Your task to perform on an android device: all mails in gmail Image 0: 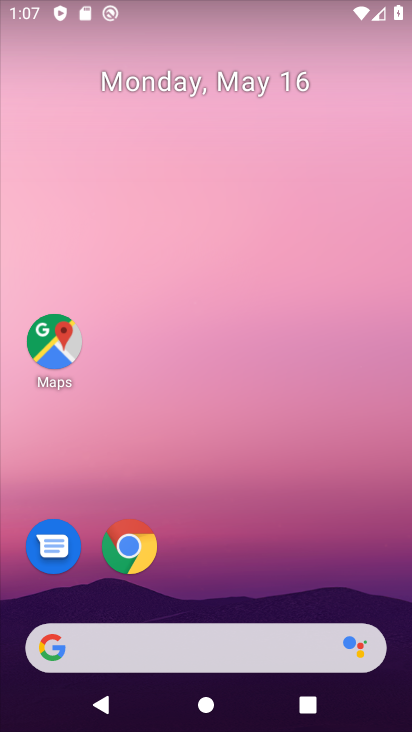
Step 0: drag from (181, 559) to (218, 183)
Your task to perform on an android device: all mails in gmail Image 1: 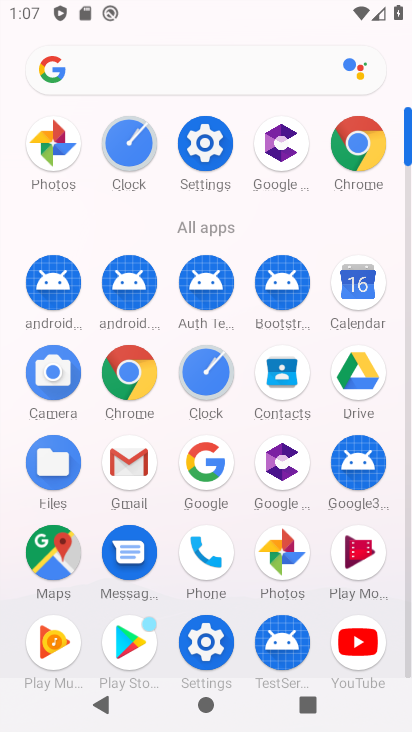
Step 1: click (130, 473)
Your task to perform on an android device: all mails in gmail Image 2: 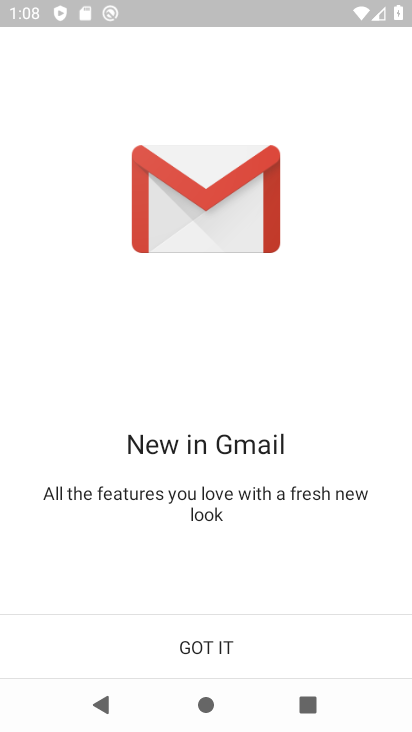
Step 2: click (217, 657)
Your task to perform on an android device: all mails in gmail Image 3: 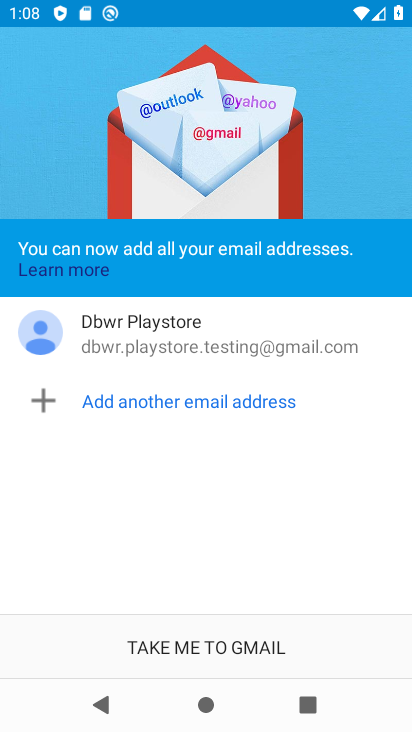
Step 3: click (206, 635)
Your task to perform on an android device: all mails in gmail Image 4: 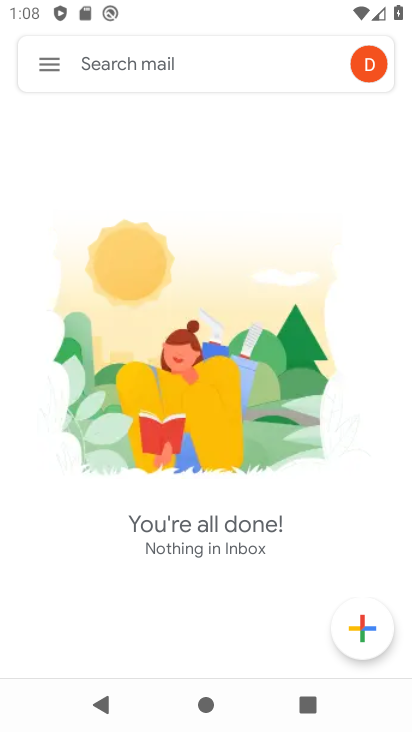
Step 4: click (42, 64)
Your task to perform on an android device: all mails in gmail Image 5: 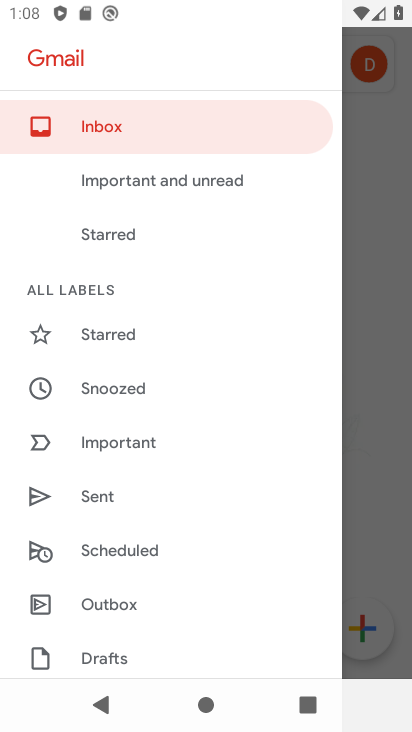
Step 5: drag from (132, 601) to (192, 107)
Your task to perform on an android device: all mails in gmail Image 6: 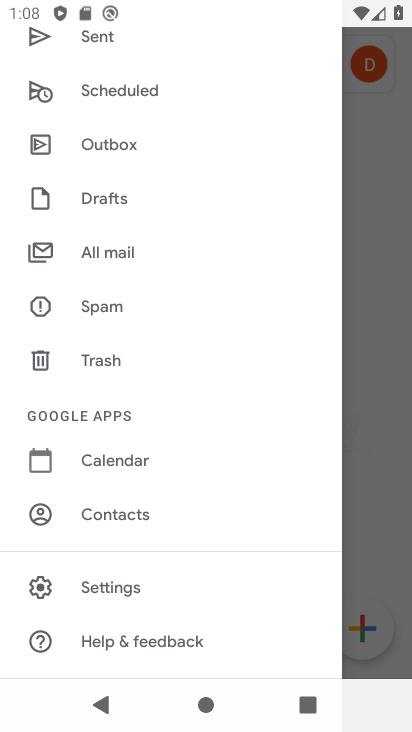
Step 6: drag from (107, 560) to (154, 200)
Your task to perform on an android device: all mails in gmail Image 7: 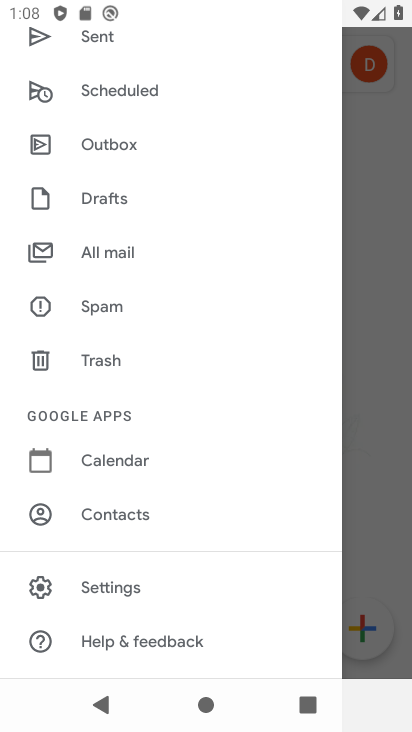
Step 7: click (106, 238)
Your task to perform on an android device: all mails in gmail Image 8: 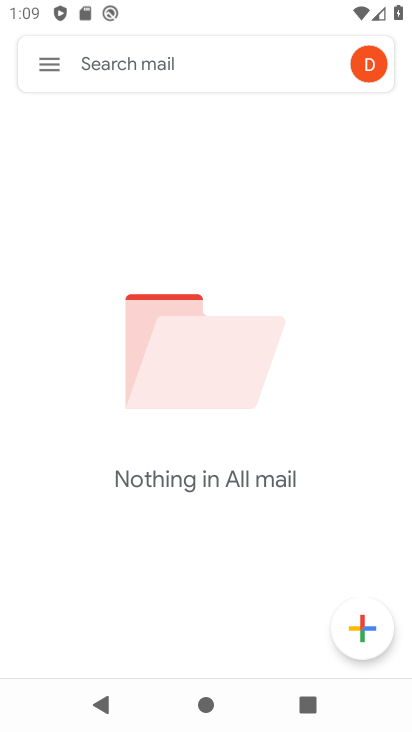
Step 8: task complete